Your task to perform on an android device: Turn off the flashlight Image 0: 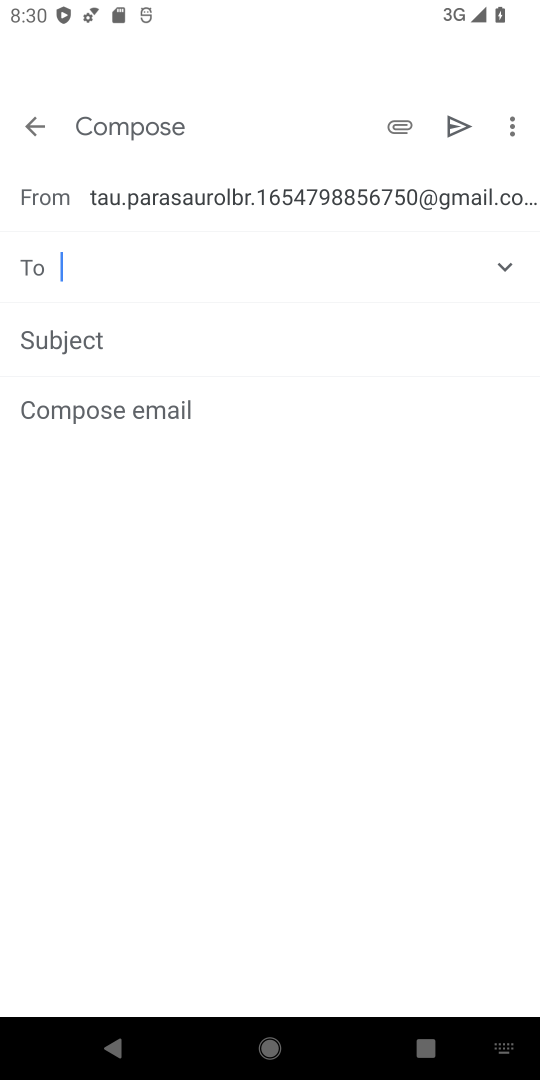
Step 0: press home button
Your task to perform on an android device: Turn off the flashlight Image 1: 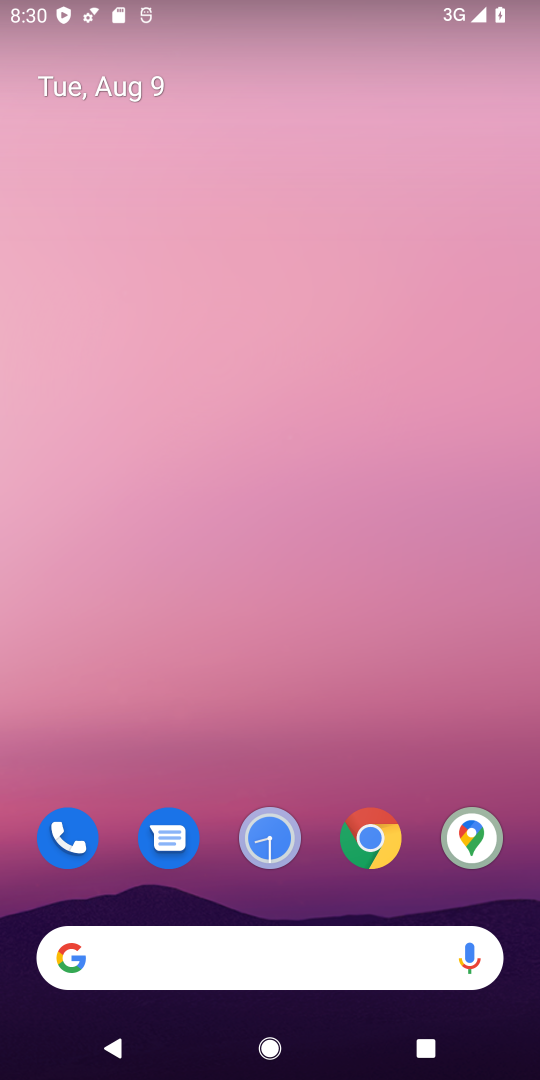
Step 1: task complete